Your task to perform on an android device: What is the recent news? Image 0: 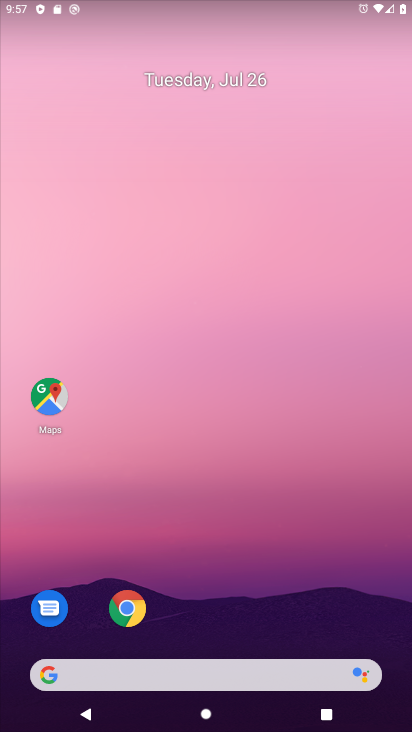
Step 0: click (3, 209)
Your task to perform on an android device: What is the recent news? Image 1: 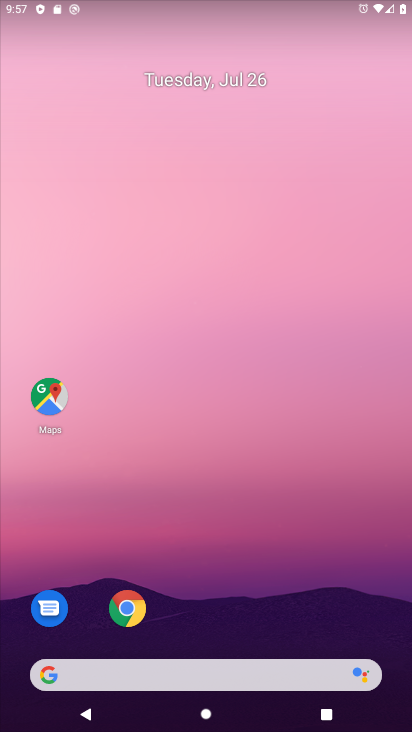
Step 1: task complete